Your task to perform on an android device: choose inbox layout in the gmail app Image 0: 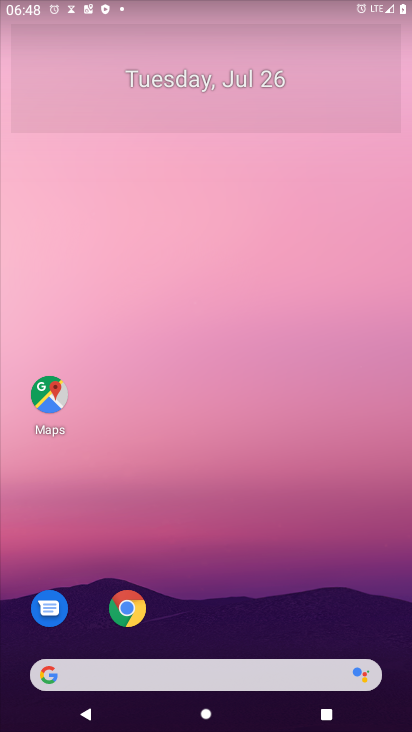
Step 0: drag from (249, 625) to (293, 212)
Your task to perform on an android device: choose inbox layout in the gmail app Image 1: 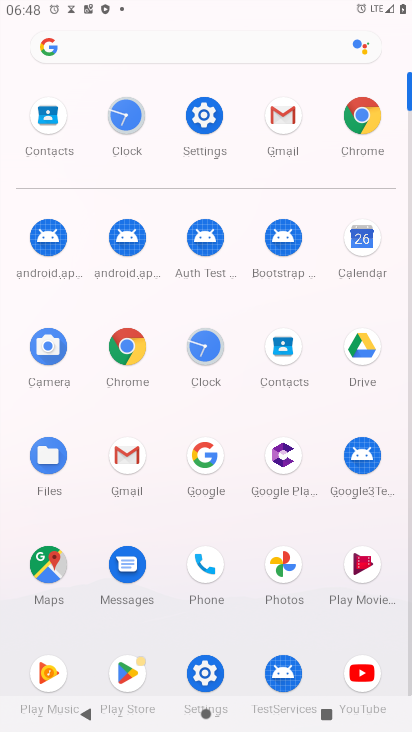
Step 1: click (290, 127)
Your task to perform on an android device: choose inbox layout in the gmail app Image 2: 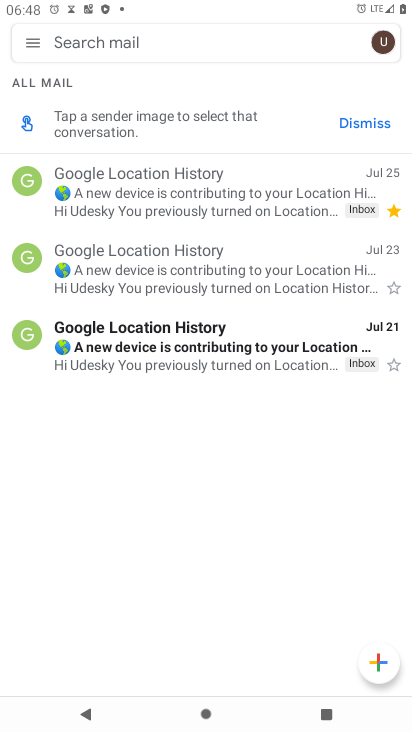
Step 2: click (35, 39)
Your task to perform on an android device: choose inbox layout in the gmail app Image 3: 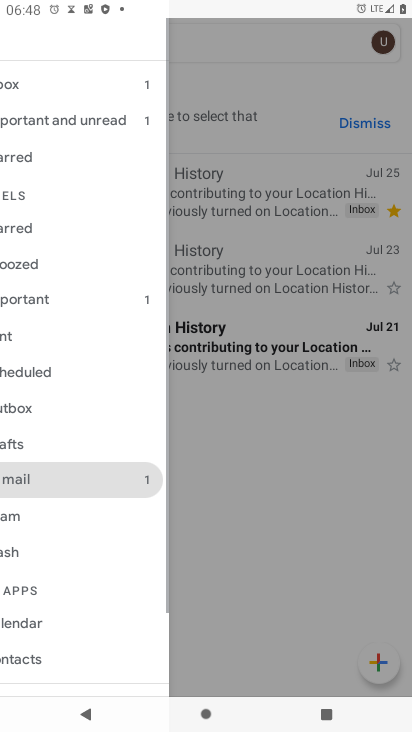
Step 3: click (35, 39)
Your task to perform on an android device: choose inbox layout in the gmail app Image 4: 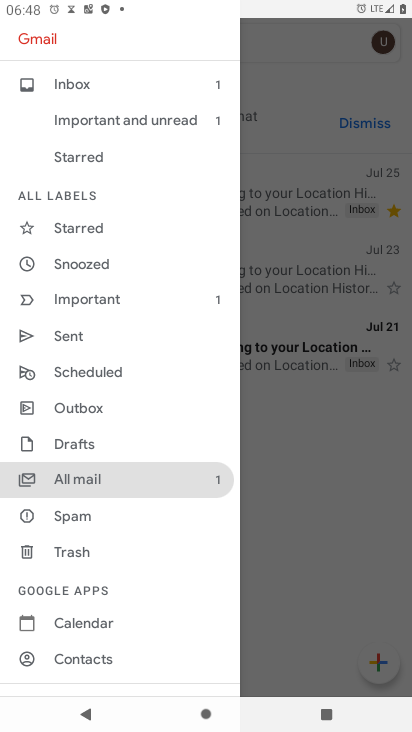
Step 4: drag from (149, 618) to (117, 163)
Your task to perform on an android device: choose inbox layout in the gmail app Image 5: 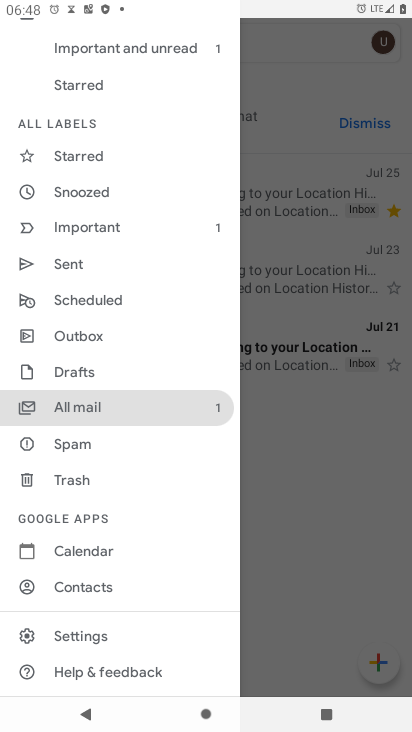
Step 5: click (75, 633)
Your task to perform on an android device: choose inbox layout in the gmail app Image 6: 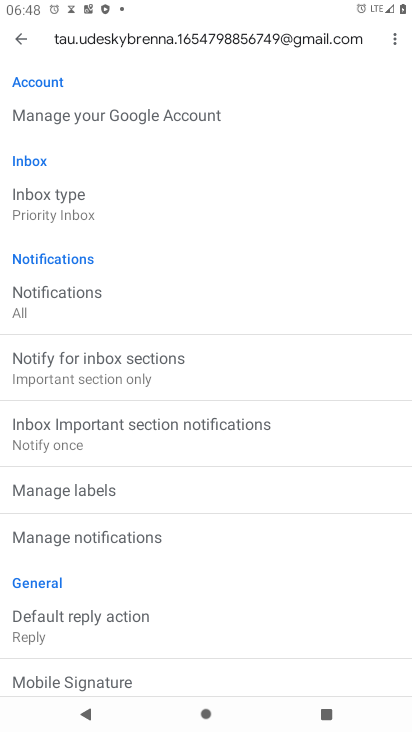
Step 6: click (58, 207)
Your task to perform on an android device: choose inbox layout in the gmail app Image 7: 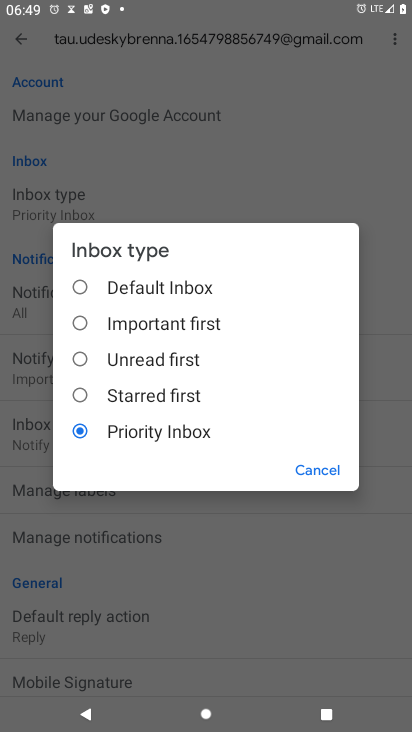
Step 7: click (80, 287)
Your task to perform on an android device: choose inbox layout in the gmail app Image 8: 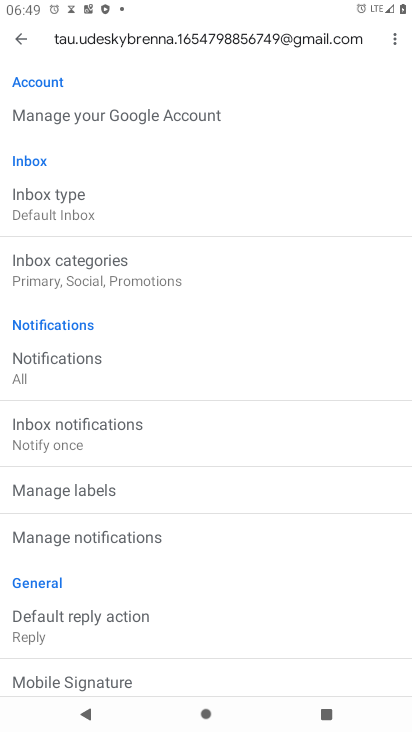
Step 8: task complete